Your task to perform on an android device: install app "Speedtest by Ookla" Image 0: 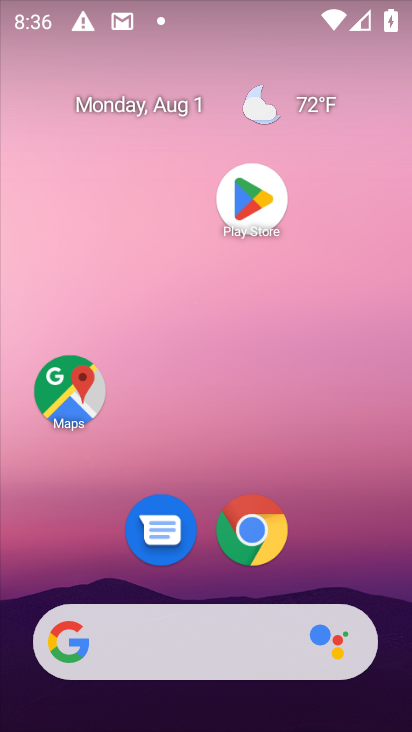
Step 0: click (249, 181)
Your task to perform on an android device: install app "Speedtest by Ookla" Image 1: 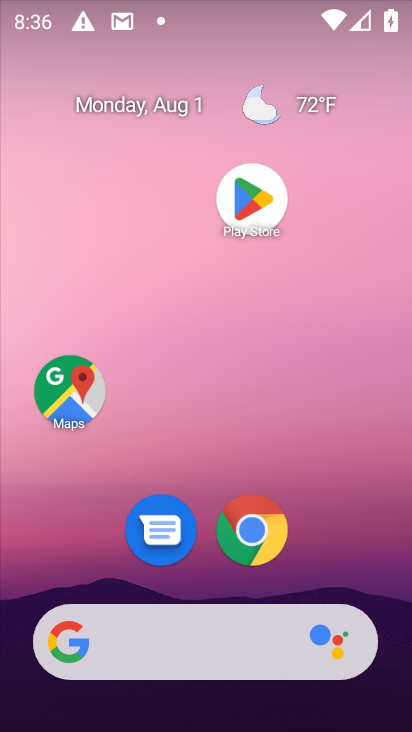
Step 1: click (249, 181)
Your task to perform on an android device: install app "Speedtest by Ookla" Image 2: 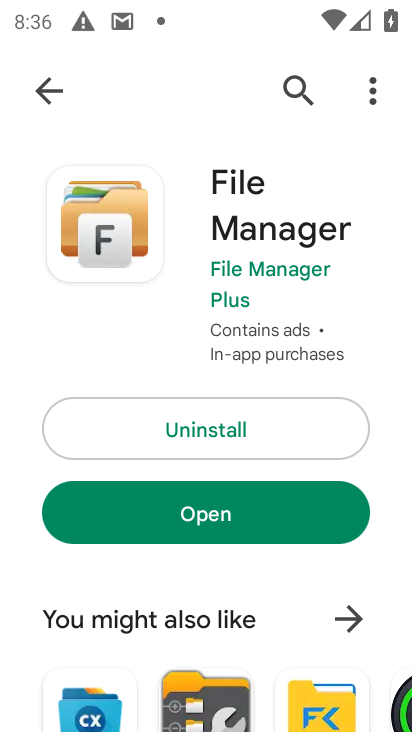
Step 2: click (301, 98)
Your task to perform on an android device: install app "Speedtest by Ookla" Image 3: 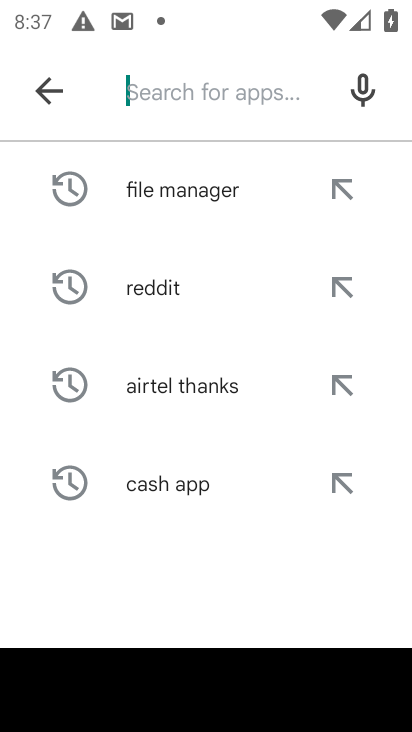
Step 3: type "speedtest by"
Your task to perform on an android device: install app "Speedtest by Ookla" Image 4: 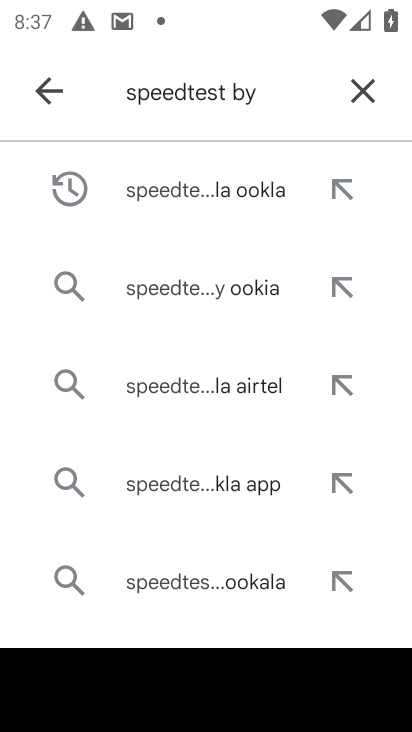
Step 4: click (280, 195)
Your task to perform on an android device: install app "Speedtest by Ookla" Image 5: 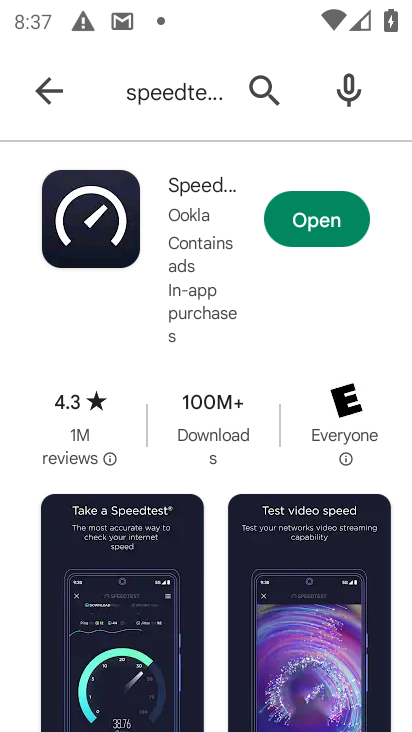
Step 5: task complete